Your task to perform on an android device: Turn on the flashlight Image 0: 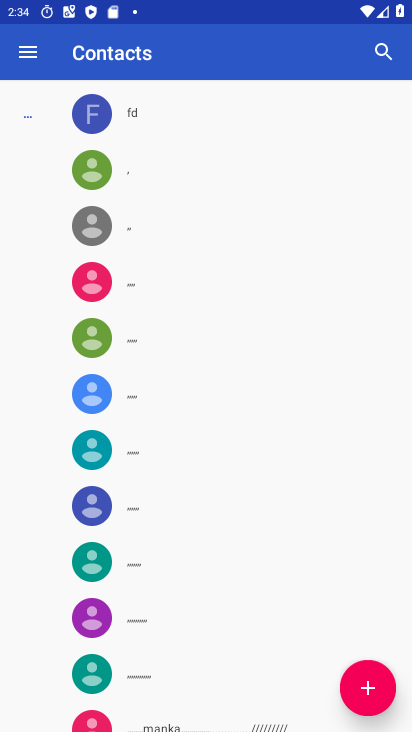
Step 0: press home button
Your task to perform on an android device: Turn on the flashlight Image 1: 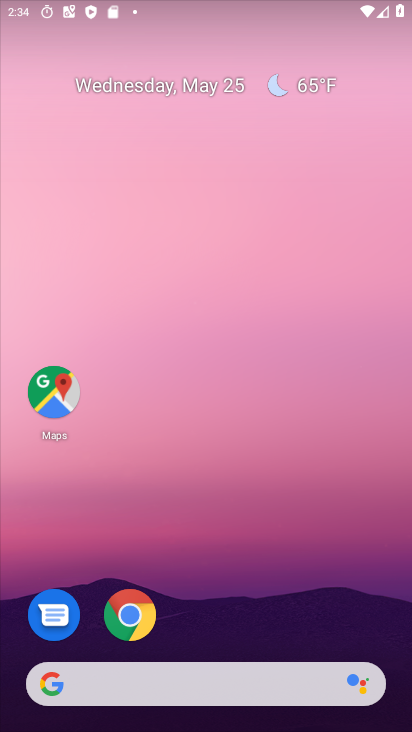
Step 1: drag from (389, 708) to (384, 226)
Your task to perform on an android device: Turn on the flashlight Image 2: 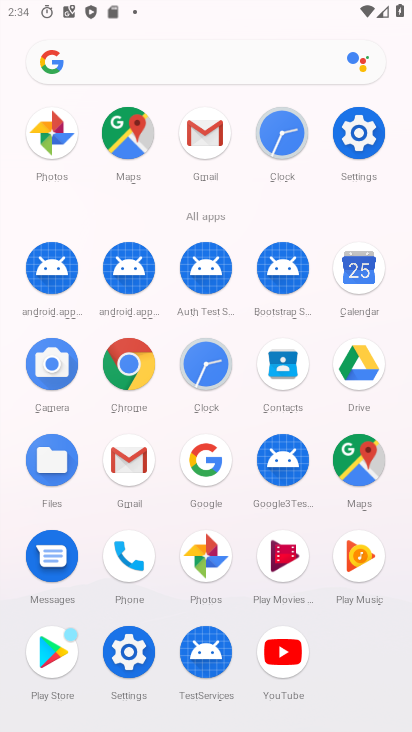
Step 2: click (360, 139)
Your task to perform on an android device: Turn on the flashlight Image 3: 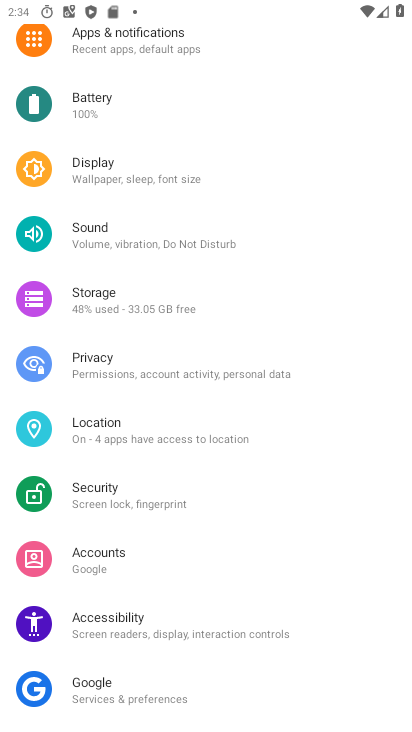
Step 3: click (95, 159)
Your task to perform on an android device: Turn on the flashlight Image 4: 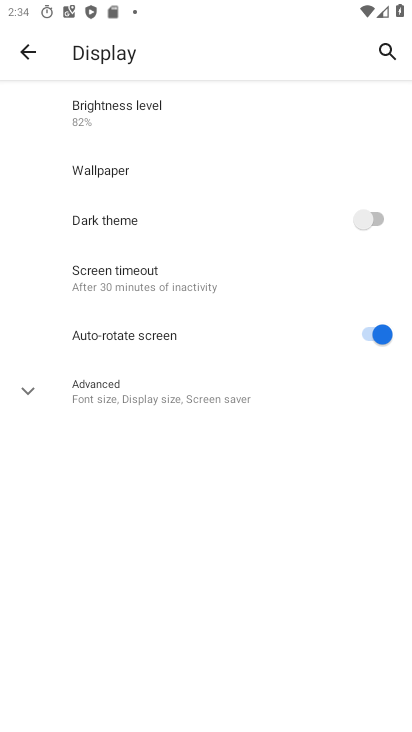
Step 4: task complete